Your task to perform on an android device: star an email in the gmail app Image 0: 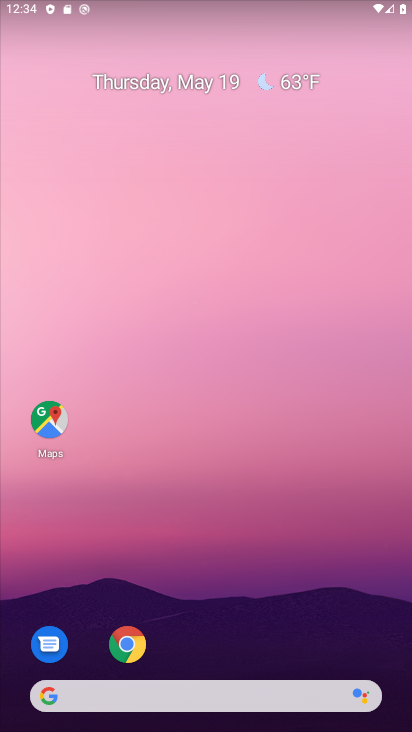
Step 0: drag from (322, 631) to (287, 69)
Your task to perform on an android device: star an email in the gmail app Image 1: 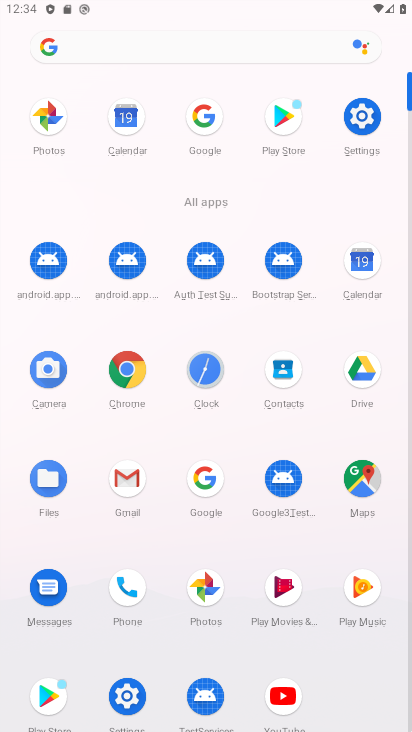
Step 1: click (116, 480)
Your task to perform on an android device: star an email in the gmail app Image 2: 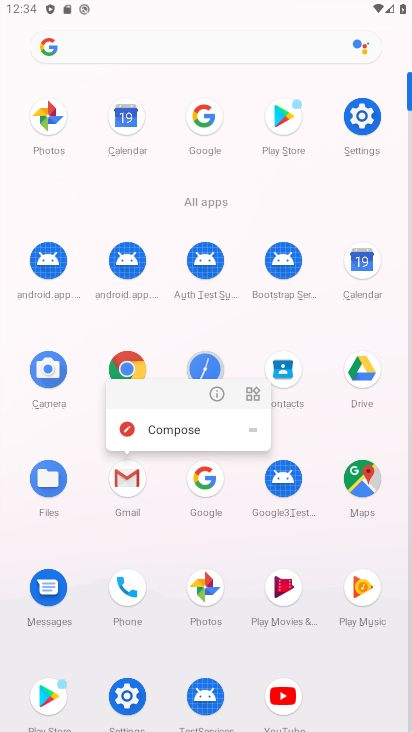
Step 2: click (121, 472)
Your task to perform on an android device: star an email in the gmail app Image 3: 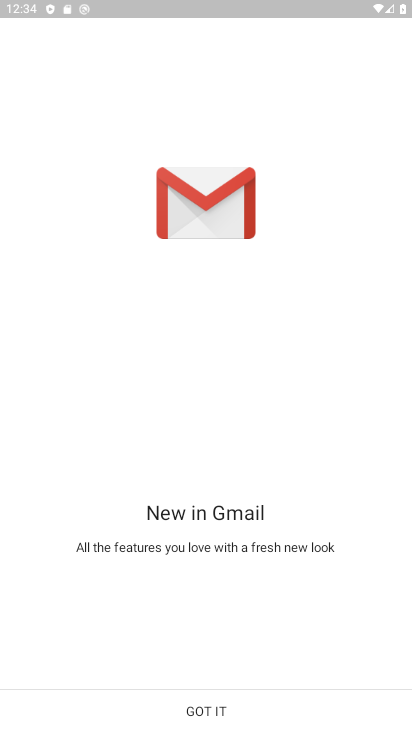
Step 3: drag from (14, 510) to (1, 406)
Your task to perform on an android device: star an email in the gmail app Image 4: 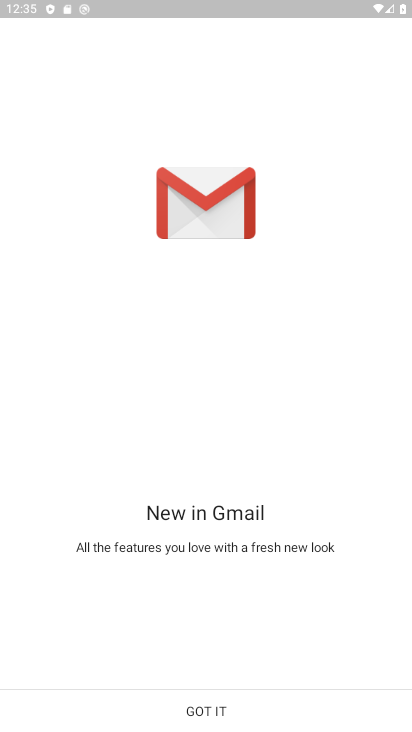
Step 4: click (269, 719)
Your task to perform on an android device: star an email in the gmail app Image 5: 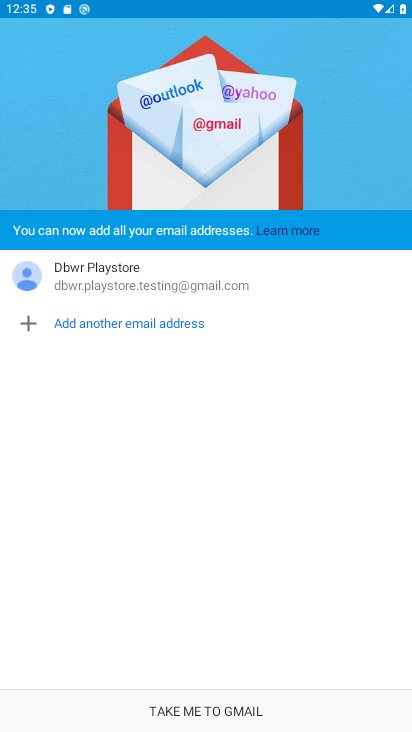
Step 5: click (208, 723)
Your task to perform on an android device: star an email in the gmail app Image 6: 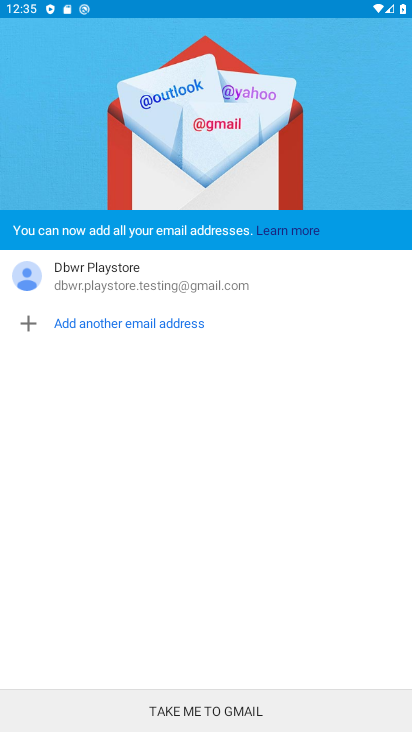
Step 6: click (208, 721)
Your task to perform on an android device: star an email in the gmail app Image 7: 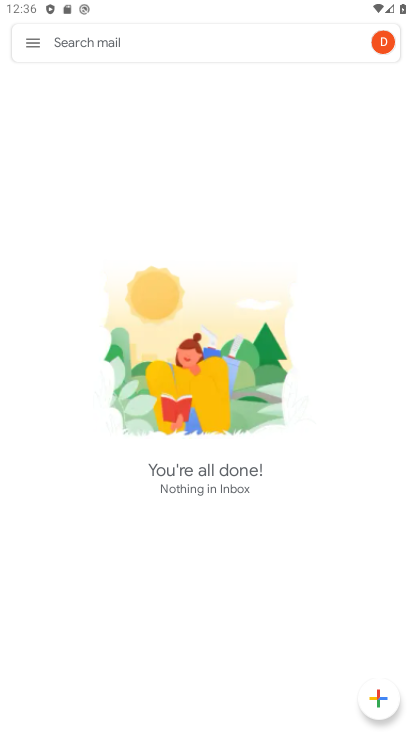
Step 7: click (33, 40)
Your task to perform on an android device: star an email in the gmail app Image 8: 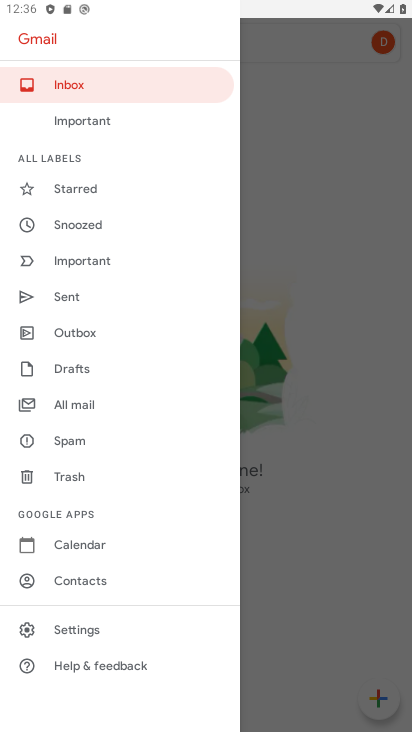
Step 8: click (68, 85)
Your task to perform on an android device: star an email in the gmail app Image 9: 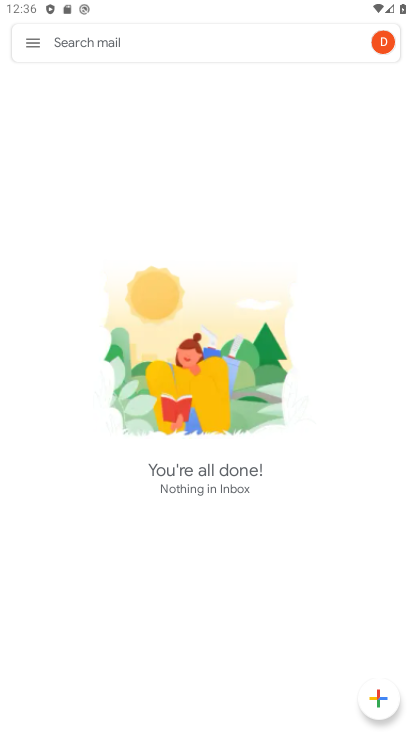
Step 9: task complete